Your task to perform on an android device: Go to ESPN.com Image 0: 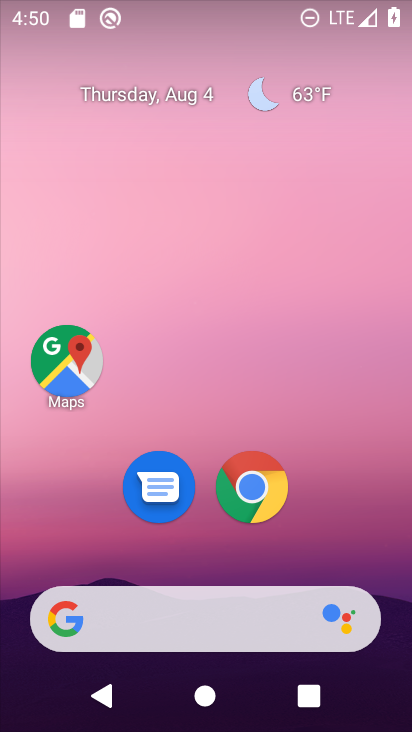
Step 0: click (236, 506)
Your task to perform on an android device: Go to ESPN.com Image 1: 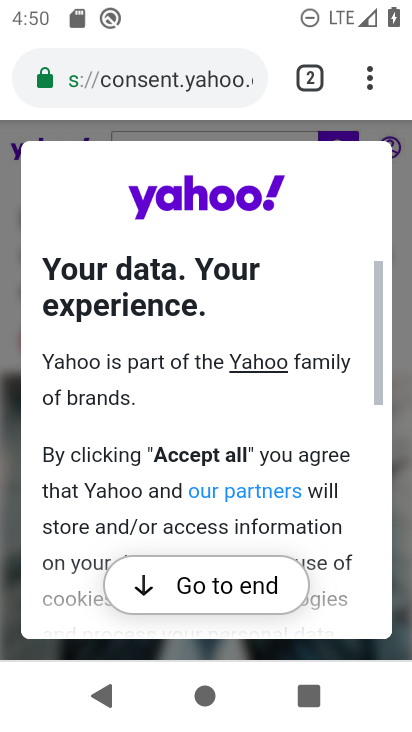
Step 1: click (319, 71)
Your task to perform on an android device: Go to ESPN.com Image 2: 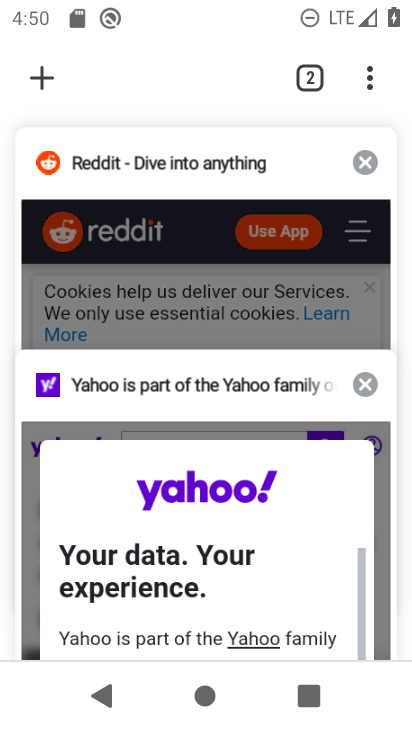
Step 2: click (31, 68)
Your task to perform on an android device: Go to ESPN.com Image 3: 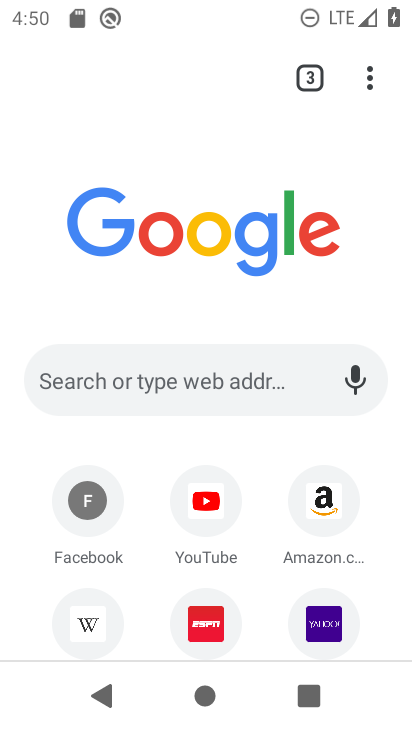
Step 3: click (214, 624)
Your task to perform on an android device: Go to ESPN.com Image 4: 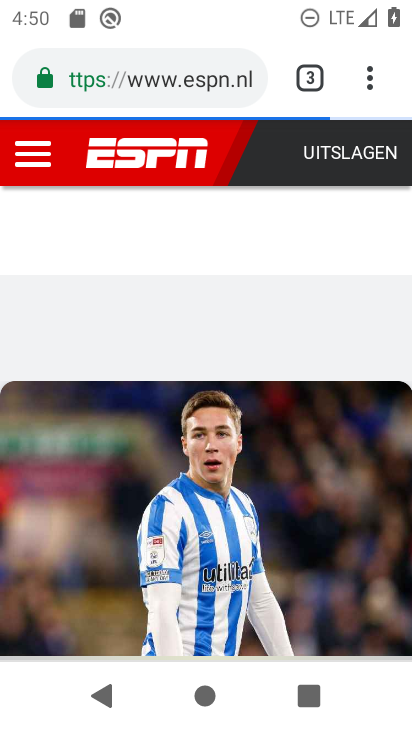
Step 4: task complete